Your task to perform on an android device: turn notification dots on Image 0: 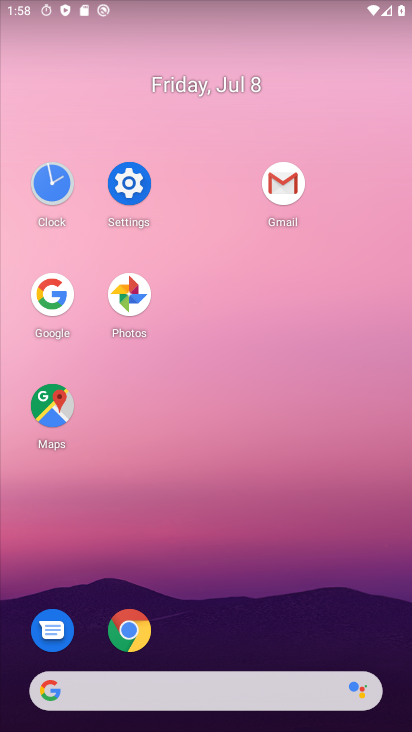
Step 0: click (137, 194)
Your task to perform on an android device: turn notification dots on Image 1: 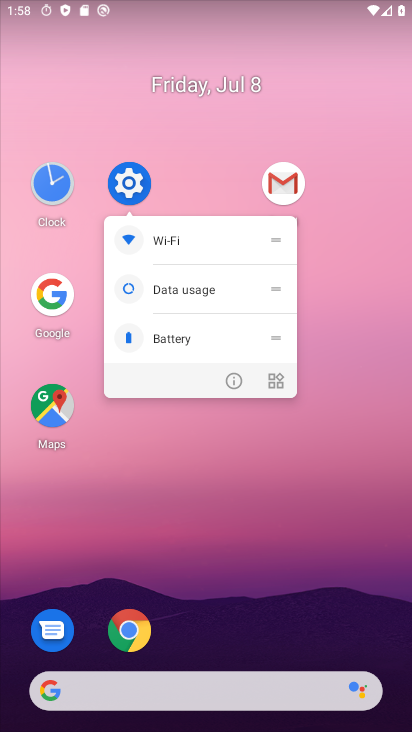
Step 1: click (139, 191)
Your task to perform on an android device: turn notification dots on Image 2: 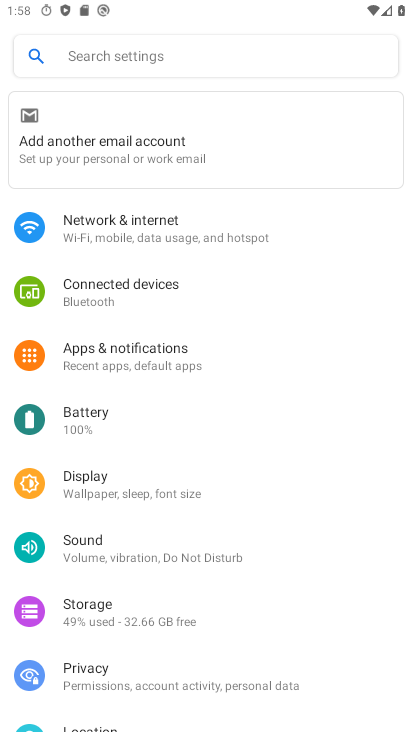
Step 2: click (230, 366)
Your task to perform on an android device: turn notification dots on Image 3: 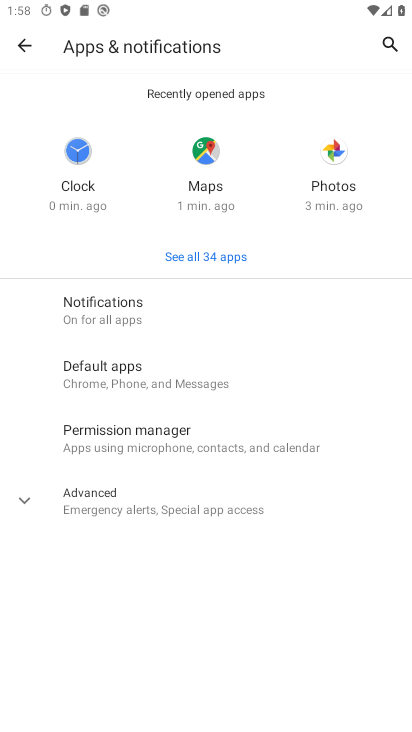
Step 3: click (166, 292)
Your task to perform on an android device: turn notification dots on Image 4: 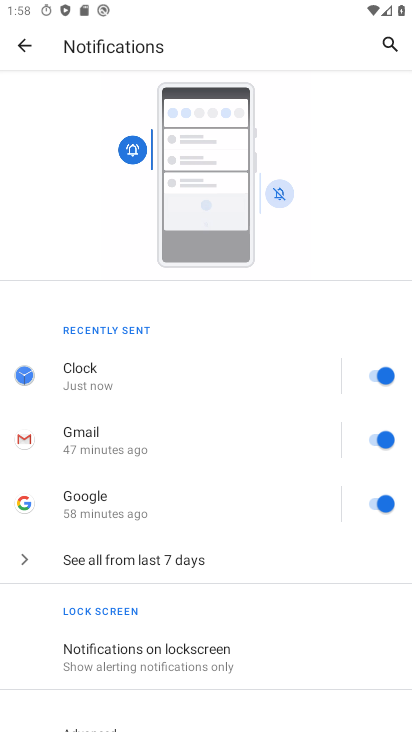
Step 4: drag from (258, 646) to (330, 342)
Your task to perform on an android device: turn notification dots on Image 5: 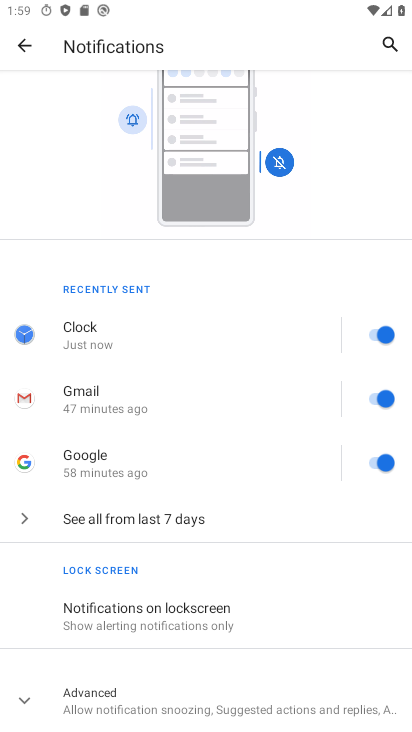
Step 5: click (171, 694)
Your task to perform on an android device: turn notification dots on Image 6: 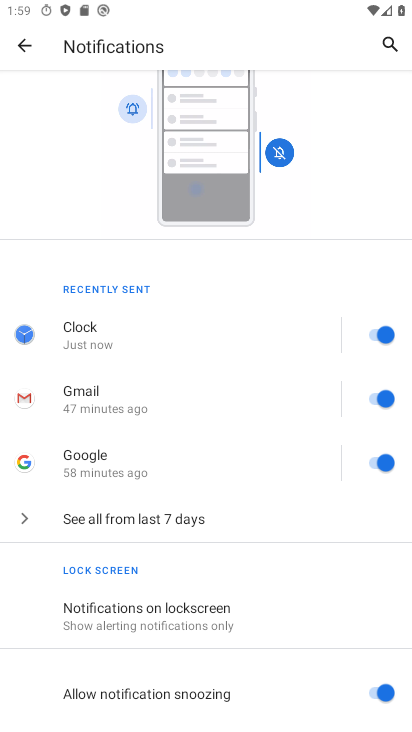
Step 6: drag from (289, 679) to (229, 203)
Your task to perform on an android device: turn notification dots on Image 7: 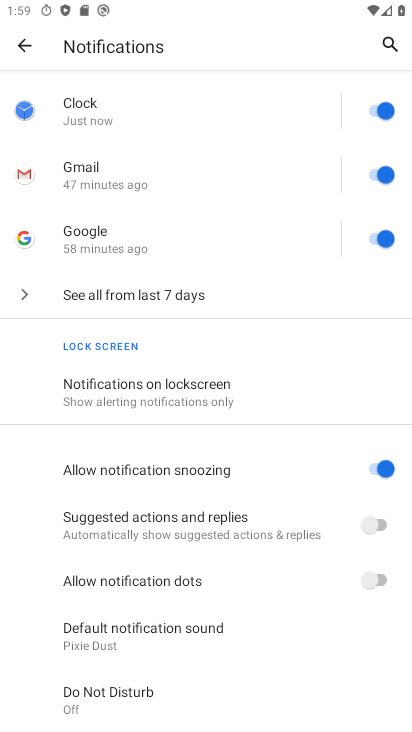
Step 7: click (366, 583)
Your task to perform on an android device: turn notification dots on Image 8: 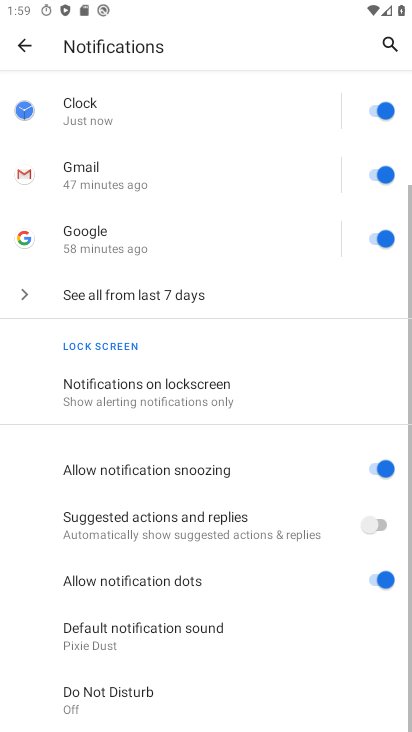
Step 8: task complete